Your task to perform on an android device: turn on improve location accuracy Image 0: 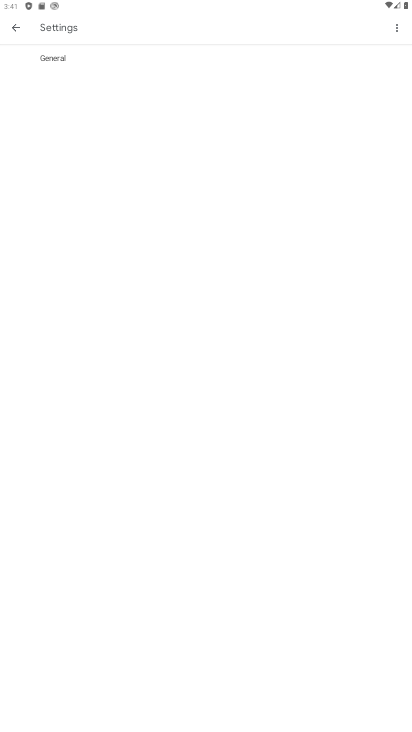
Step 0: press home button
Your task to perform on an android device: turn on improve location accuracy Image 1: 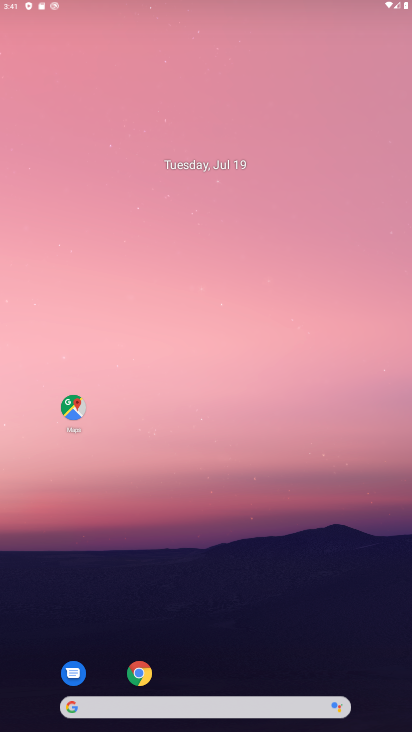
Step 1: drag from (349, 539) to (284, 112)
Your task to perform on an android device: turn on improve location accuracy Image 2: 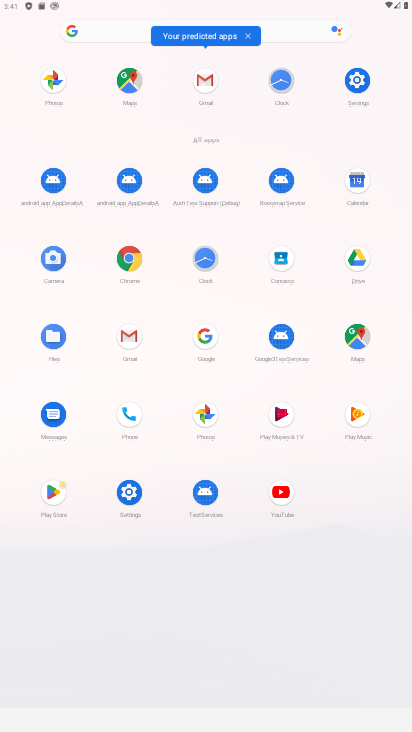
Step 2: click (355, 82)
Your task to perform on an android device: turn on improve location accuracy Image 3: 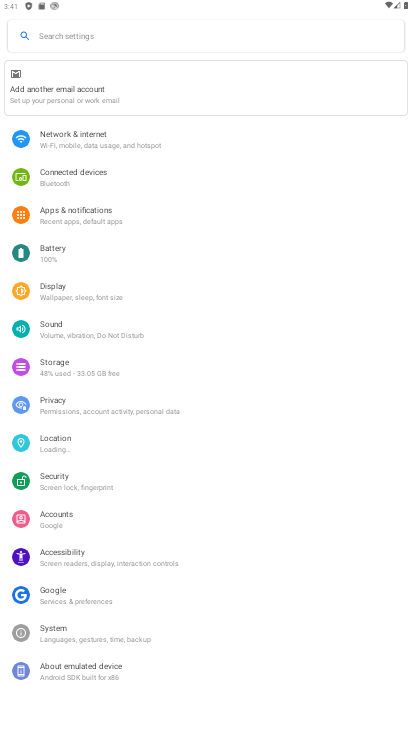
Step 3: click (61, 437)
Your task to perform on an android device: turn on improve location accuracy Image 4: 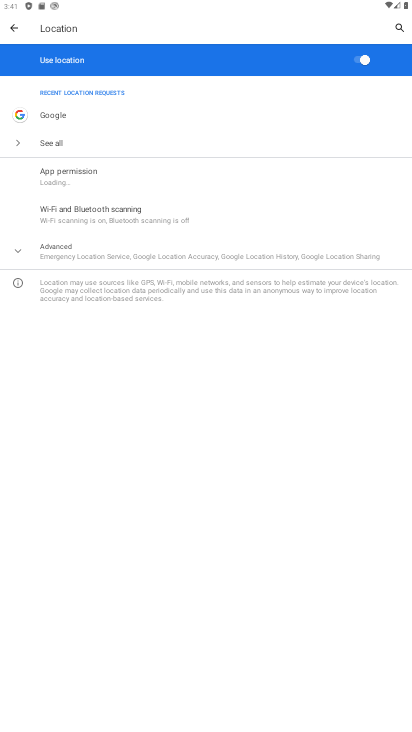
Step 4: click (151, 258)
Your task to perform on an android device: turn on improve location accuracy Image 5: 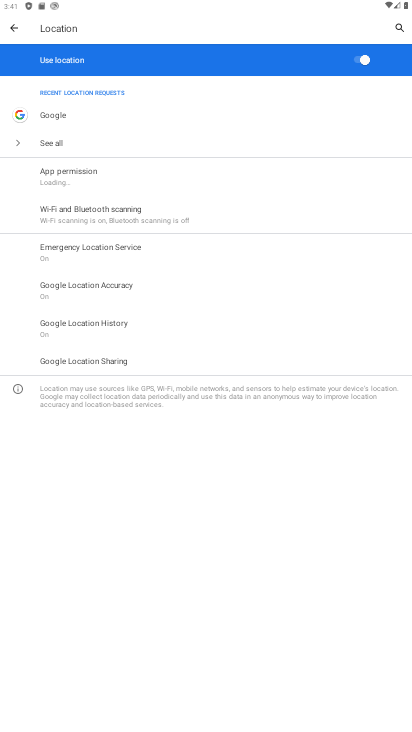
Step 5: click (121, 292)
Your task to perform on an android device: turn on improve location accuracy Image 6: 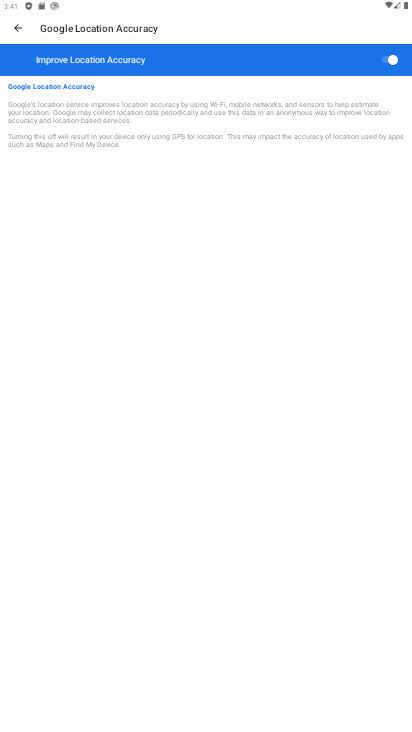
Step 6: task complete